Your task to perform on an android device: Show me popular videos on Youtube Image 0: 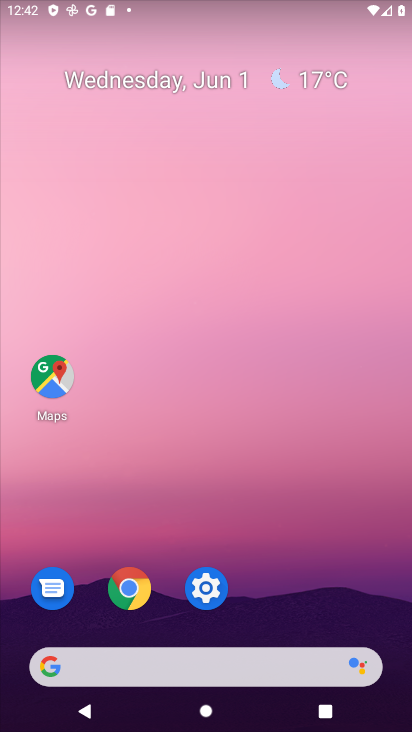
Step 0: press home button
Your task to perform on an android device: Show me popular videos on Youtube Image 1: 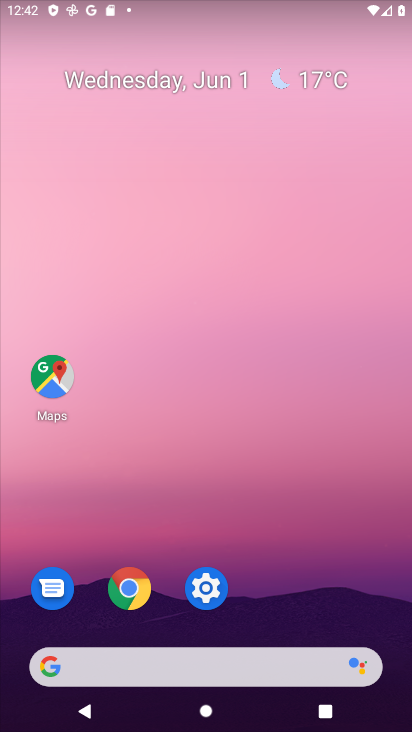
Step 1: drag from (282, 683) to (244, 216)
Your task to perform on an android device: Show me popular videos on Youtube Image 2: 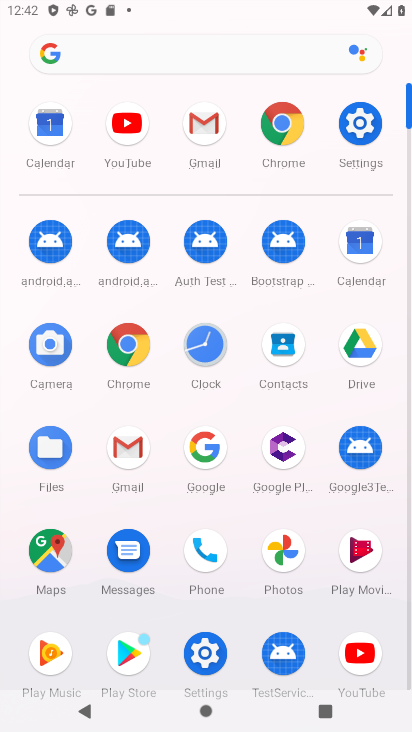
Step 2: click (380, 646)
Your task to perform on an android device: Show me popular videos on Youtube Image 3: 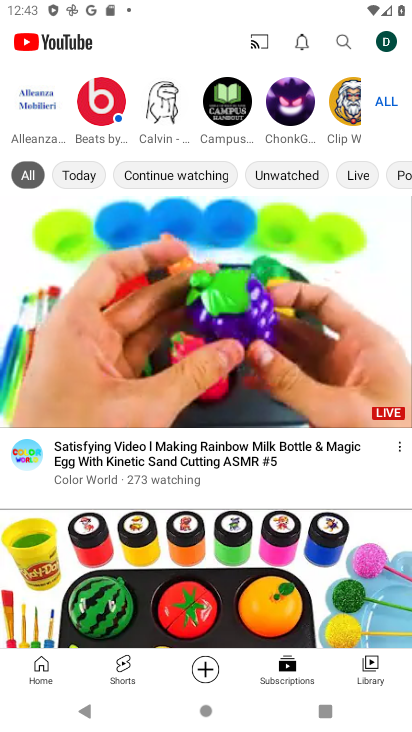
Step 3: click (336, 42)
Your task to perform on an android device: Show me popular videos on Youtube Image 4: 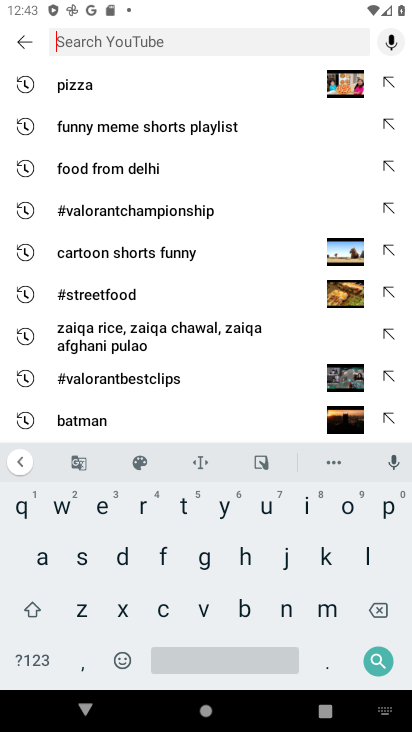
Step 4: click (386, 509)
Your task to perform on an android device: Show me popular videos on Youtube Image 5: 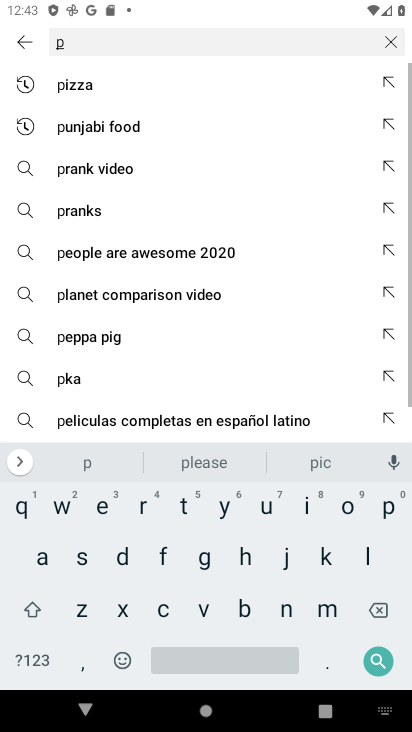
Step 5: click (345, 512)
Your task to perform on an android device: Show me popular videos on Youtube Image 6: 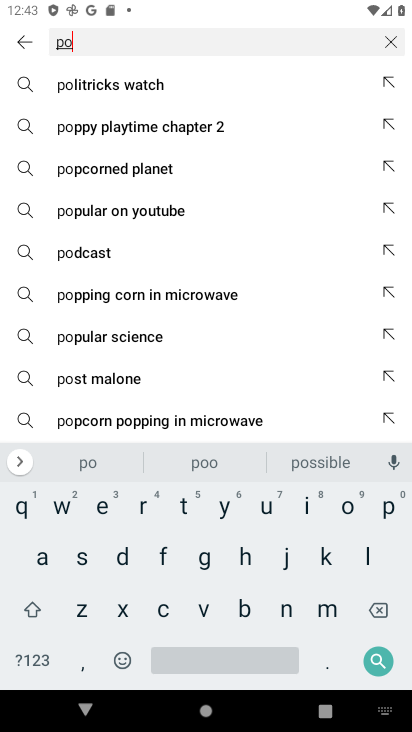
Step 6: click (379, 514)
Your task to perform on an android device: Show me popular videos on Youtube Image 7: 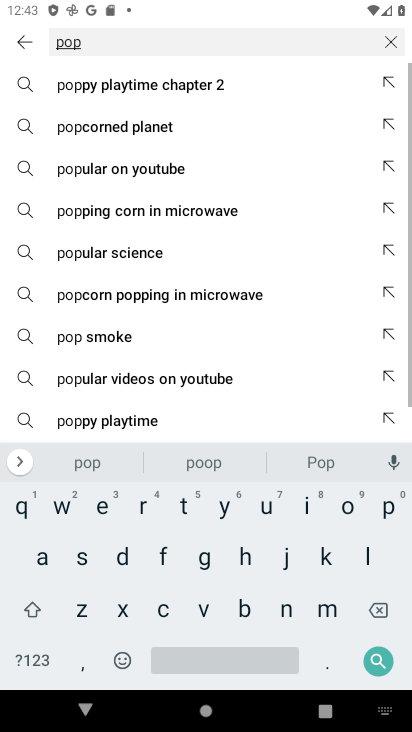
Step 7: click (262, 513)
Your task to perform on an android device: Show me popular videos on Youtube Image 8: 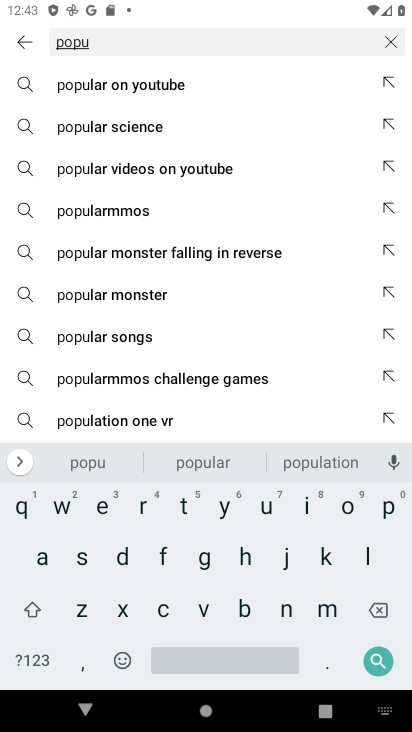
Step 8: click (216, 458)
Your task to perform on an android device: Show me popular videos on Youtube Image 9: 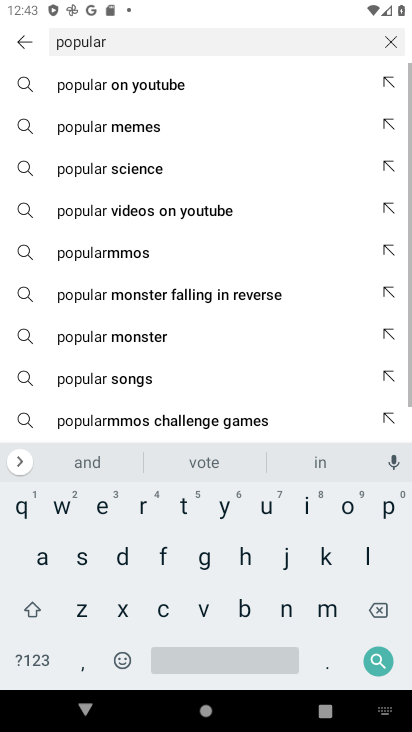
Step 9: click (199, 609)
Your task to perform on an android device: Show me popular videos on Youtube Image 10: 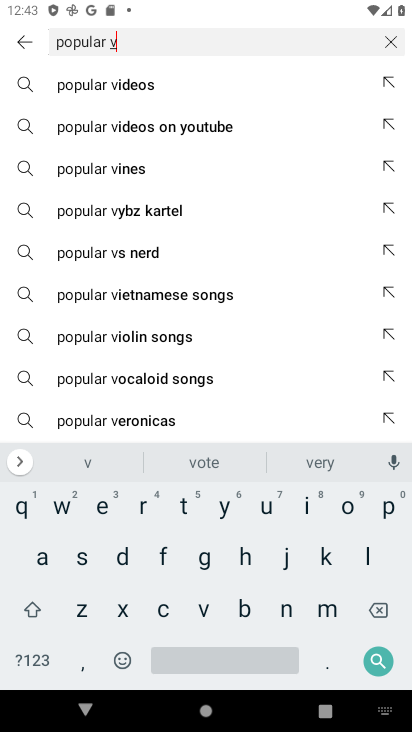
Step 10: click (158, 92)
Your task to perform on an android device: Show me popular videos on Youtube Image 11: 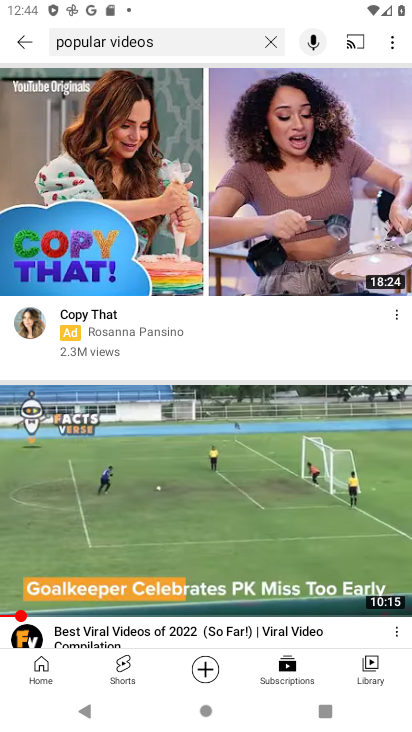
Step 11: task complete